Your task to perform on an android device: Open maps Image 0: 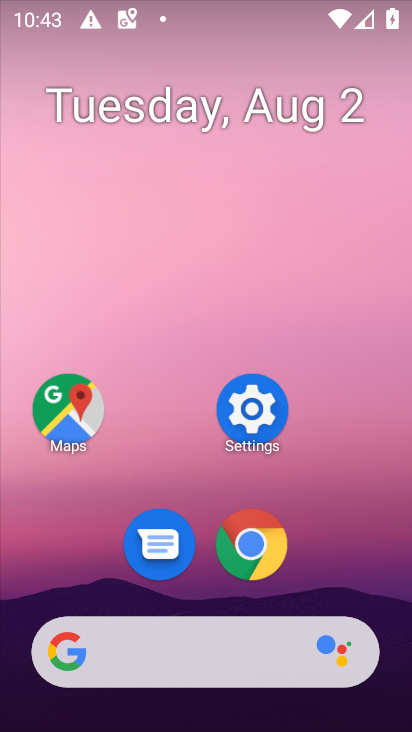
Step 0: click (67, 418)
Your task to perform on an android device: Open maps Image 1: 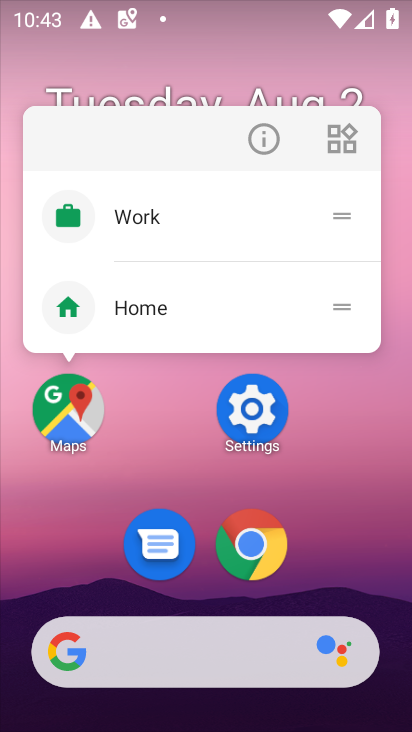
Step 1: click (67, 418)
Your task to perform on an android device: Open maps Image 2: 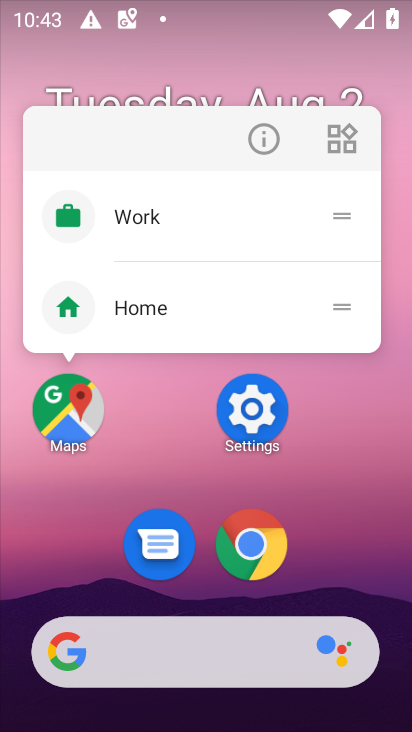
Step 2: click (67, 419)
Your task to perform on an android device: Open maps Image 3: 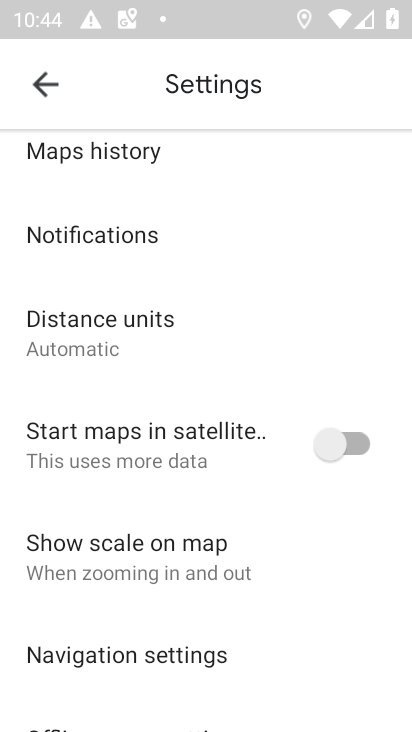
Step 3: click (52, 82)
Your task to perform on an android device: Open maps Image 4: 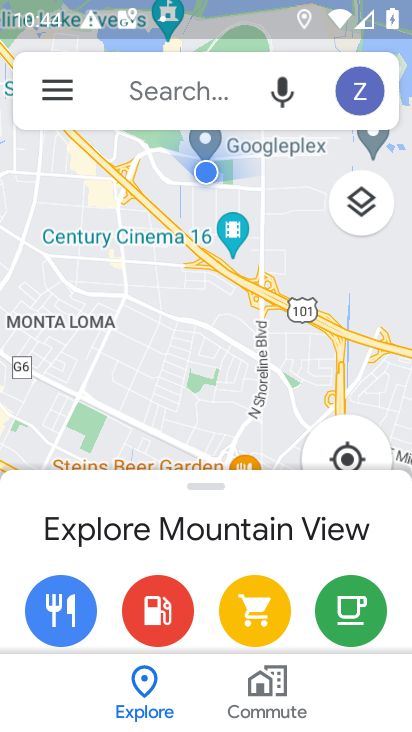
Step 4: task complete